Your task to perform on an android device: delete browsing data in the chrome app Image 0: 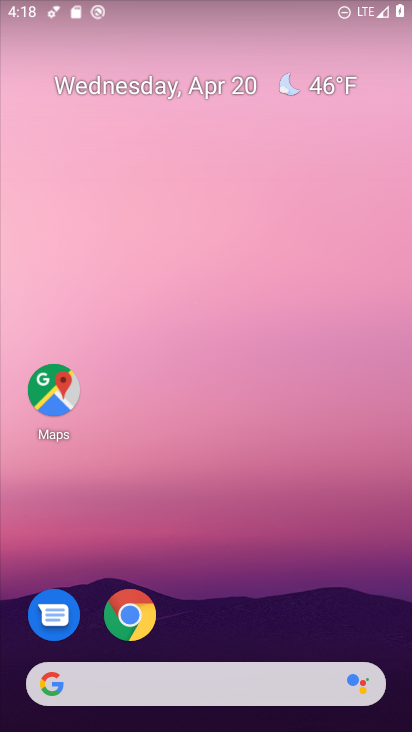
Step 0: click (133, 607)
Your task to perform on an android device: delete browsing data in the chrome app Image 1: 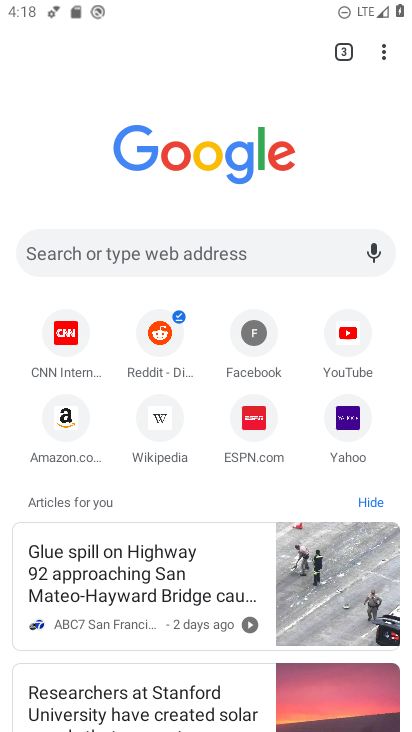
Step 1: click (387, 45)
Your task to perform on an android device: delete browsing data in the chrome app Image 2: 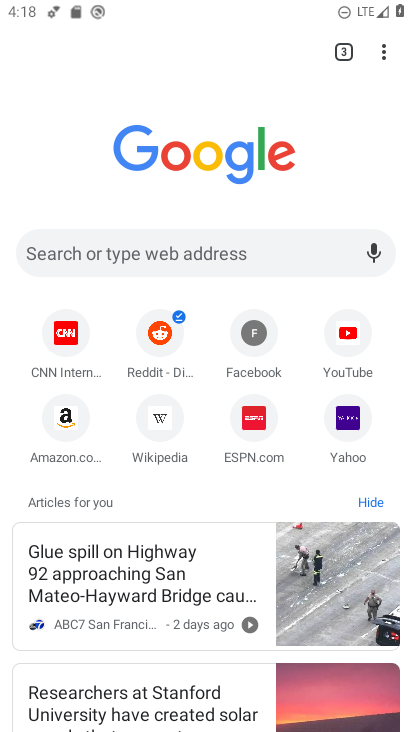
Step 2: drag from (380, 40) to (222, 357)
Your task to perform on an android device: delete browsing data in the chrome app Image 3: 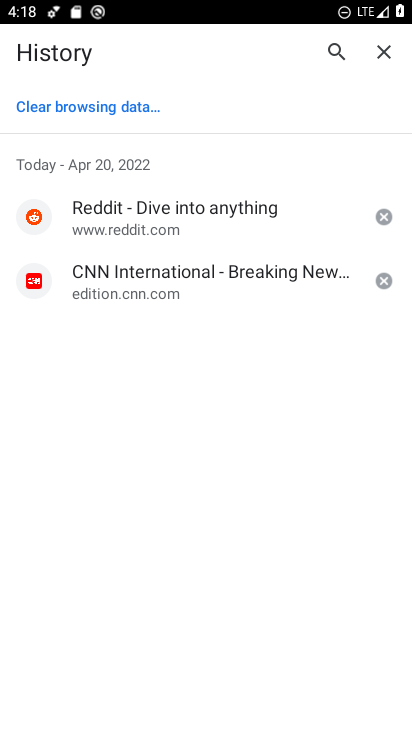
Step 3: click (88, 110)
Your task to perform on an android device: delete browsing data in the chrome app Image 4: 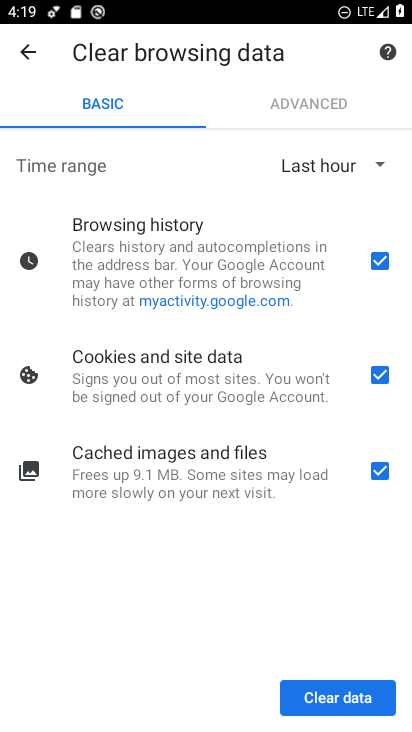
Step 4: click (320, 695)
Your task to perform on an android device: delete browsing data in the chrome app Image 5: 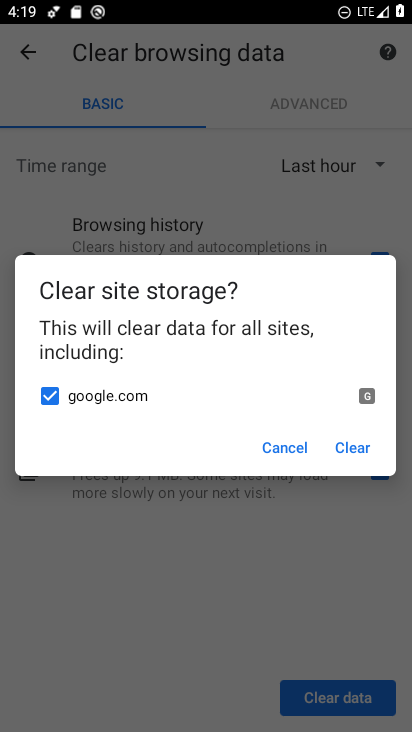
Step 5: click (344, 444)
Your task to perform on an android device: delete browsing data in the chrome app Image 6: 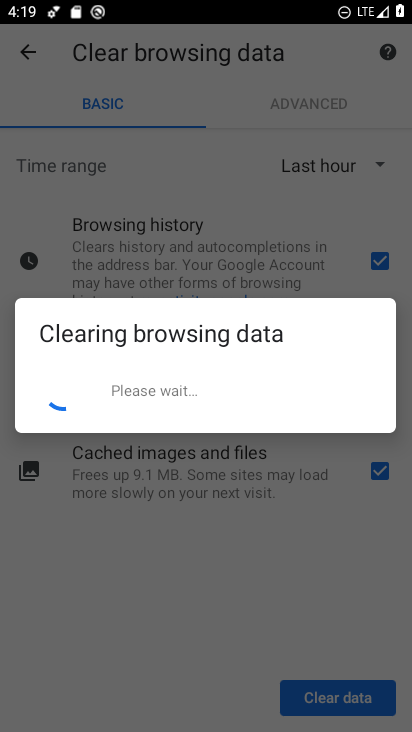
Step 6: click (127, 549)
Your task to perform on an android device: delete browsing data in the chrome app Image 7: 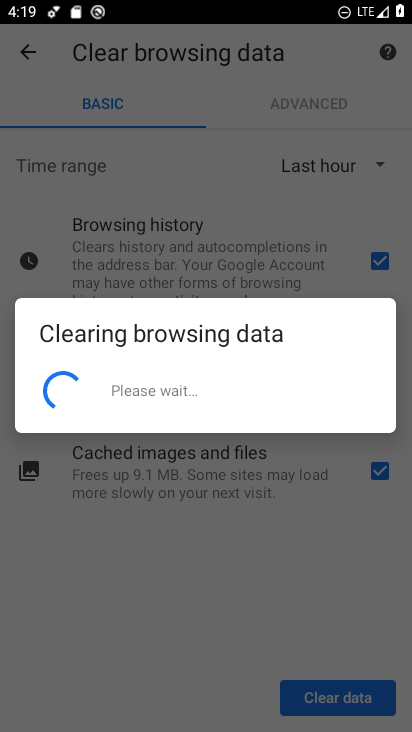
Step 7: task complete